Your task to perform on an android device: turn off airplane mode Image 0: 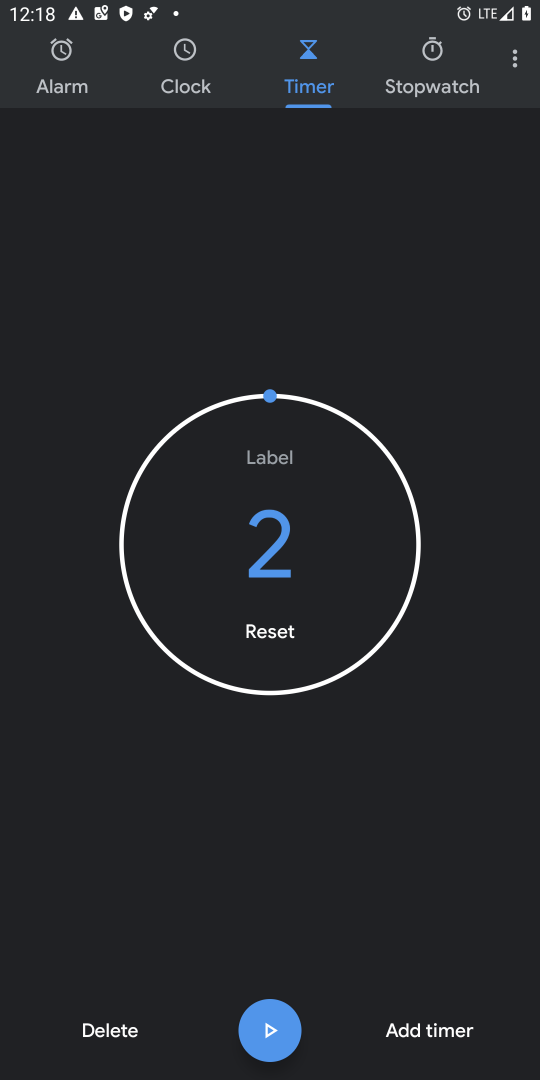
Step 0: press home button
Your task to perform on an android device: turn off airplane mode Image 1: 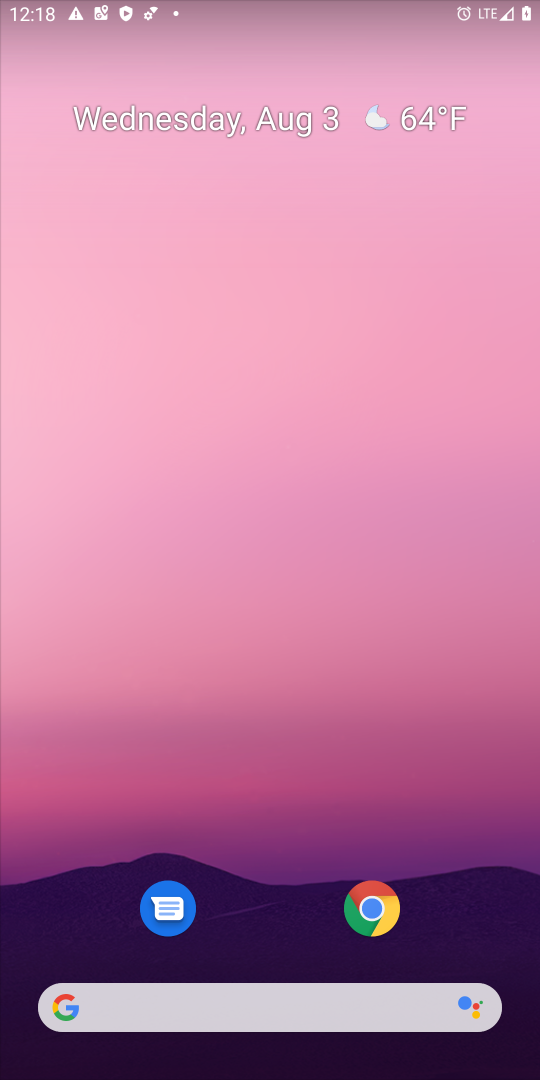
Step 1: drag from (278, 451) to (369, 9)
Your task to perform on an android device: turn off airplane mode Image 2: 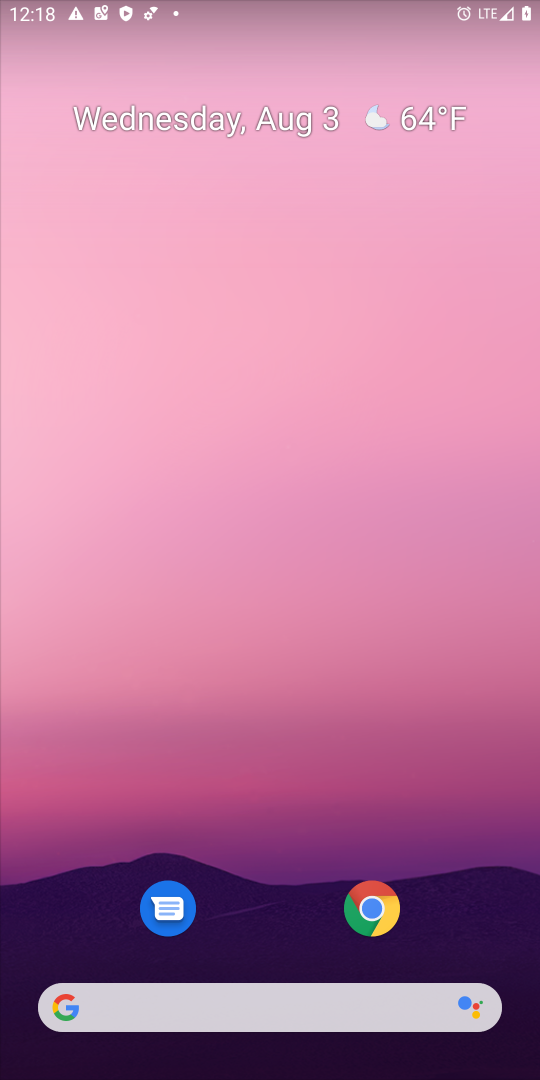
Step 2: drag from (303, 817) to (289, 0)
Your task to perform on an android device: turn off airplane mode Image 3: 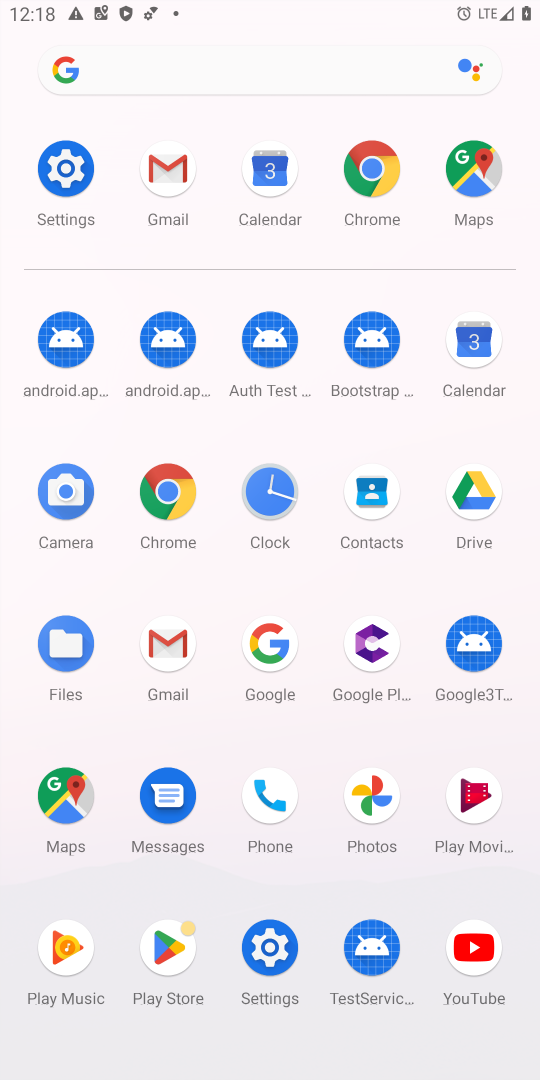
Step 3: click (78, 297)
Your task to perform on an android device: turn off airplane mode Image 4: 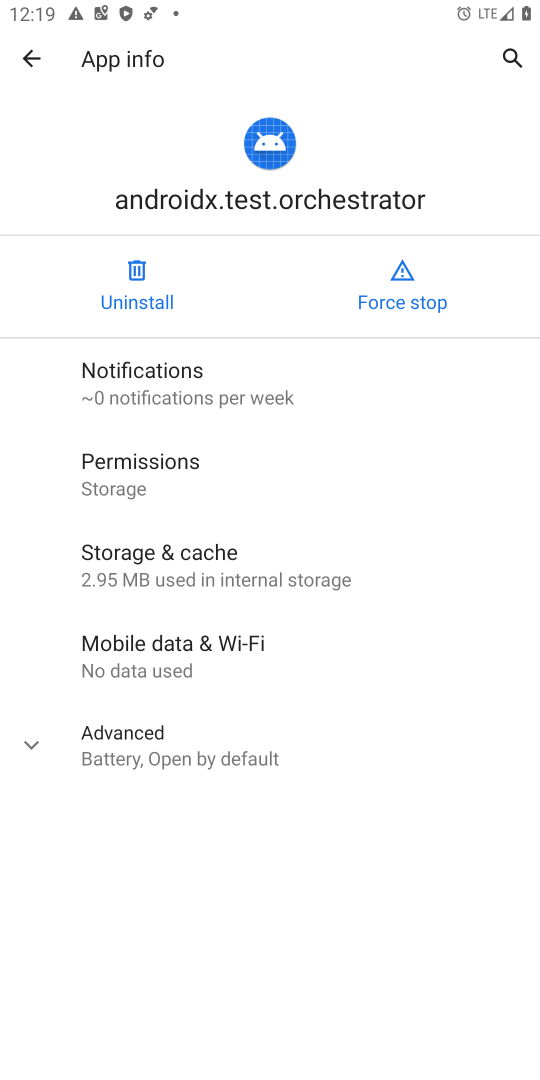
Step 4: press back button
Your task to perform on an android device: turn off airplane mode Image 5: 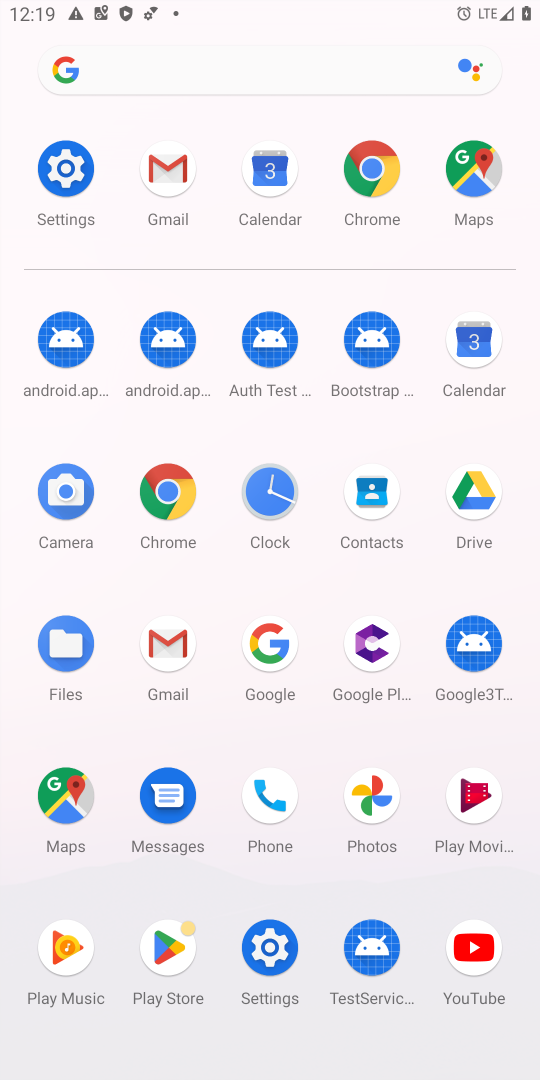
Step 5: click (277, 932)
Your task to perform on an android device: turn off airplane mode Image 6: 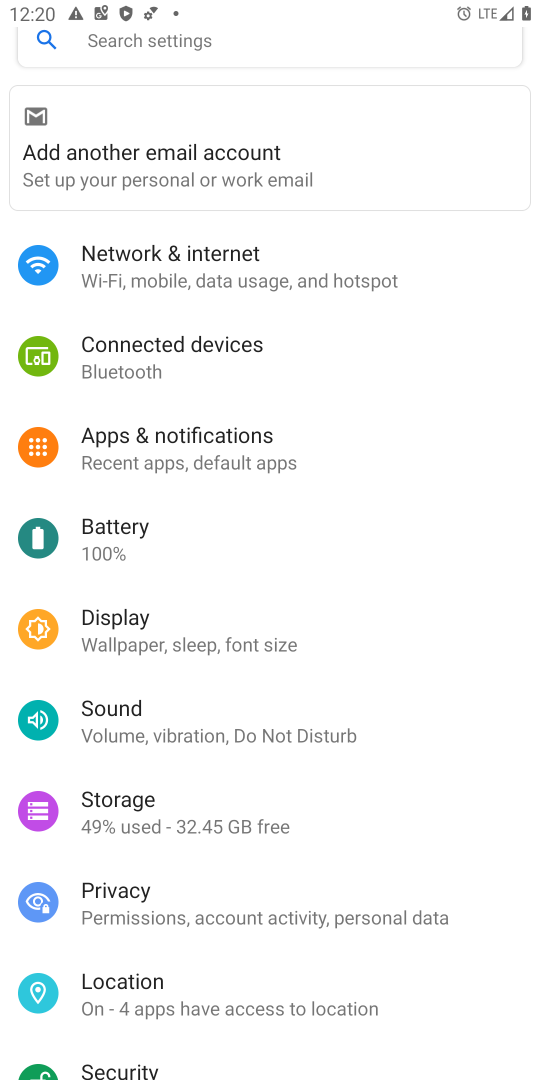
Step 6: click (287, 269)
Your task to perform on an android device: turn off airplane mode Image 7: 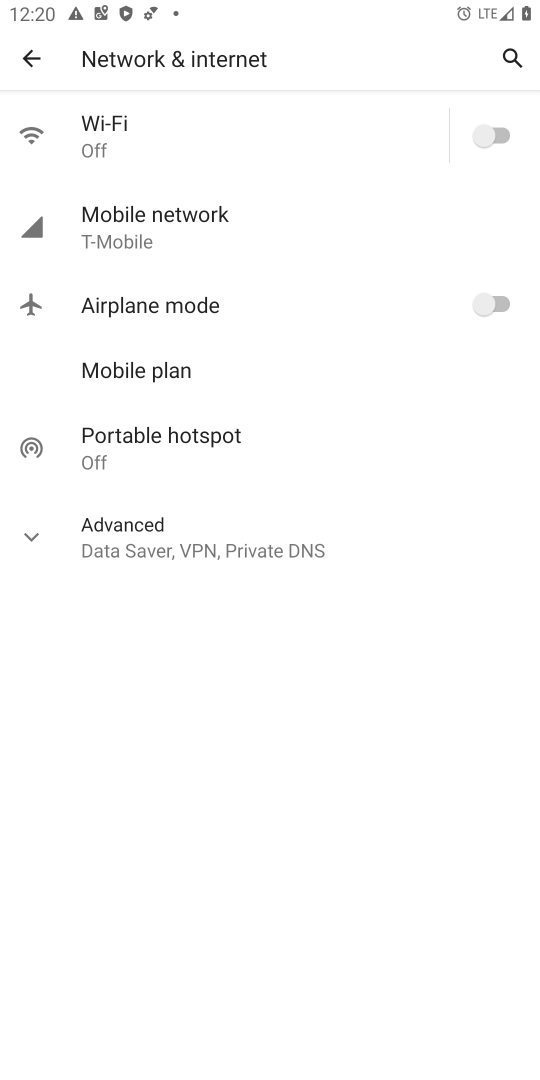
Step 7: task complete